Your task to perform on an android device: What's the weather going to be tomorrow? Image 0: 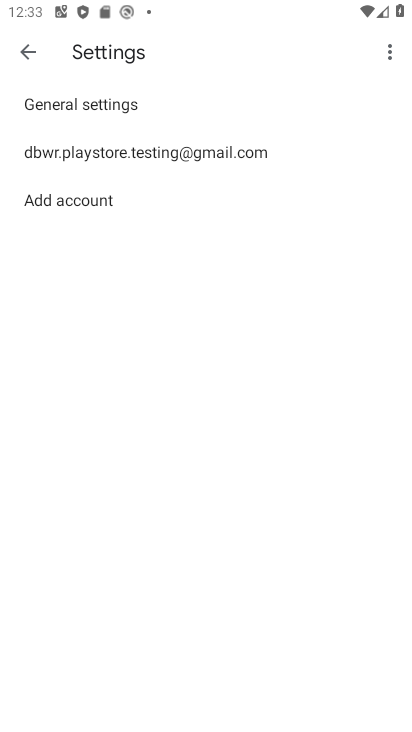
Step 0: press home button
Your task to perform on an android device: What's the weather going to be tomorrow? Image 1: 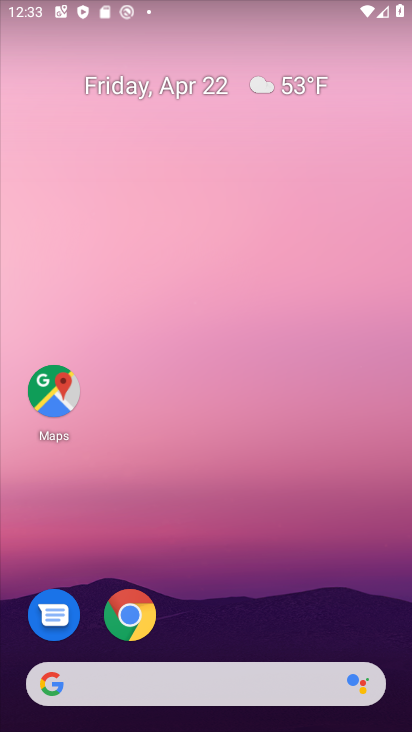
Step 1: click (293, 87)
Your task to perform on an android device: What's the weather going to be tomorrow? Image 2: 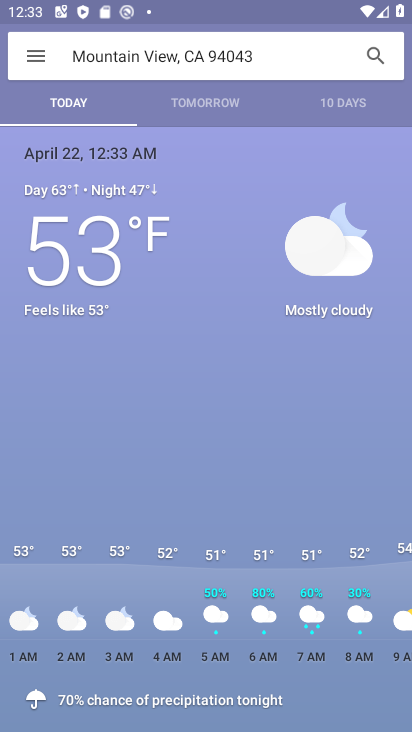
Step 2: click (209, 102)
Your task to perform on an android device: What's the weather going to be tomorrow? Image 3: 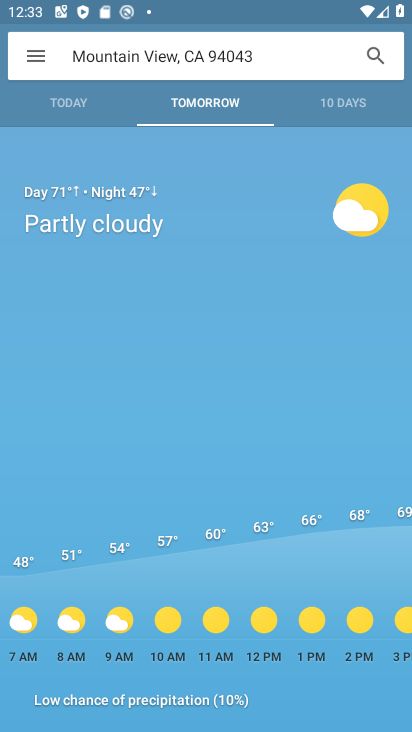
Step 3: press home button
Your task to perform on an android device: What's the weather going to be tomorrow? Image 4: 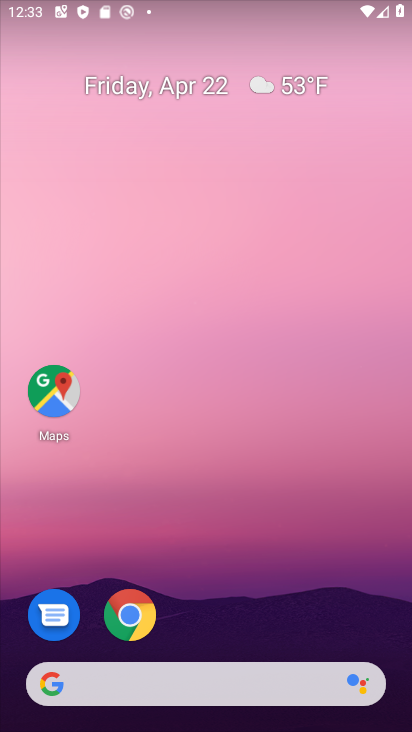
Step 4: click (301, 72)
Your task to perform on an android device: What's the weather going to be tomorrow? Image 5: 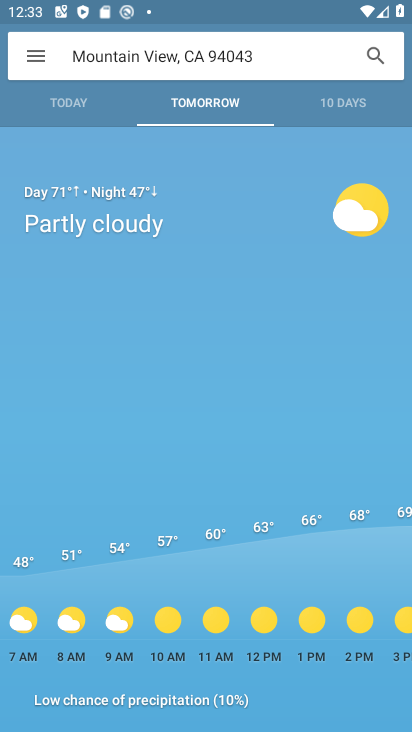
Step 5: task complete